Your task to perform on an android device: turn off wifi Image 0: 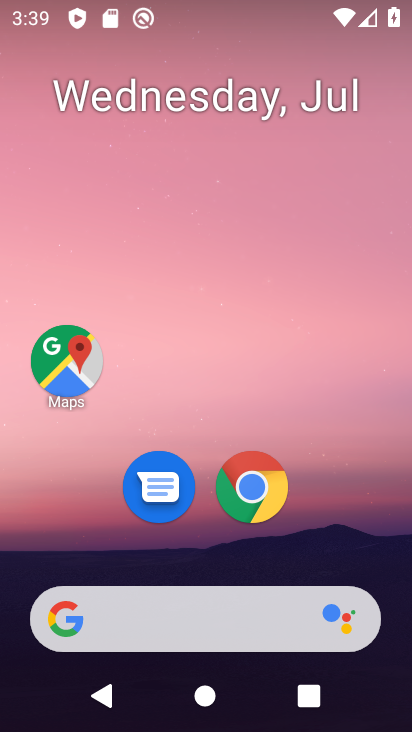
Step 0: drag from (199, 622) to (287, 122)
Your task to perform on an android device: turn off wifi Image 1: 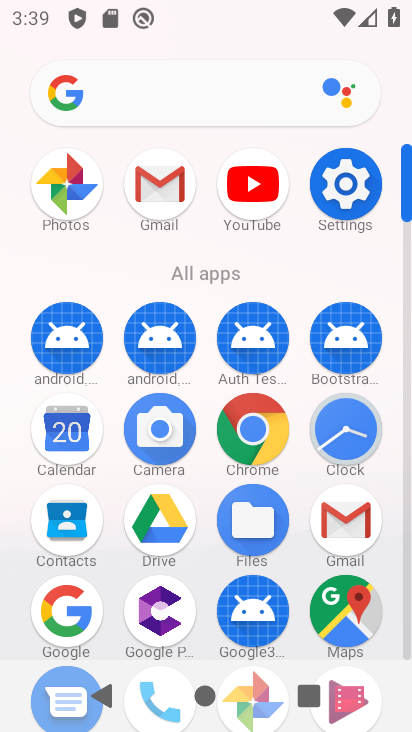
Step 1: click (337, 214)
Your task to perform on an android device: turn off wifi Image 2: 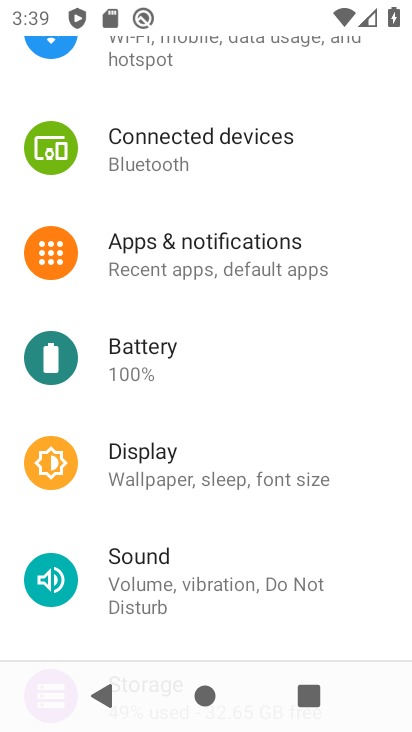
Step 2: drag from (203, 374) to (207, 625)
Your task to perform on an android device: turn off wifi Image 3: 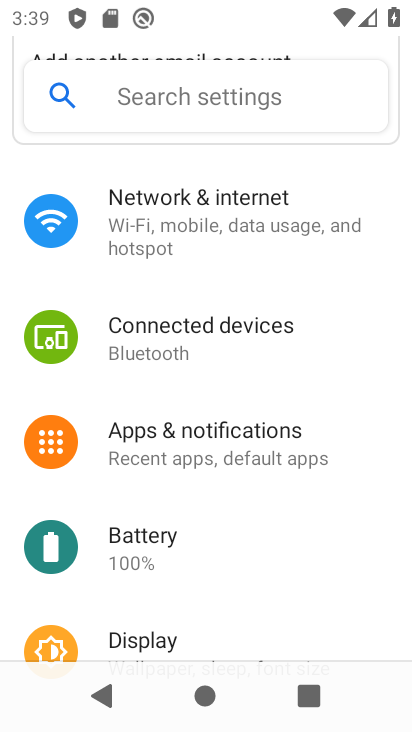
Step 3: click (190, 238)
Your task to perform on an android device: turn off wifi Image 4: 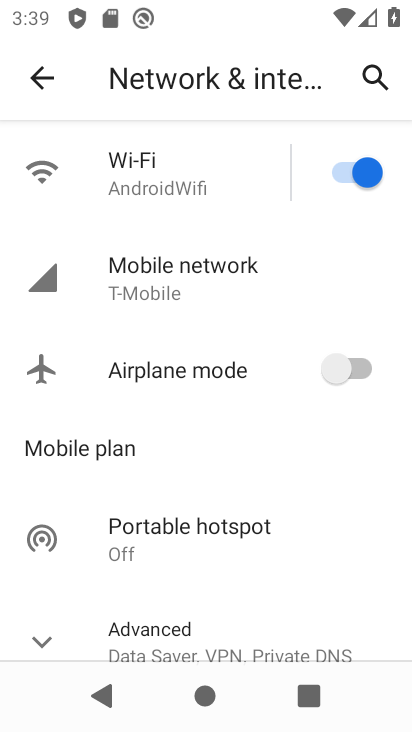
Step 4: click (334, 175)
Your task to perform on an android device: turn off wifi Image 5: 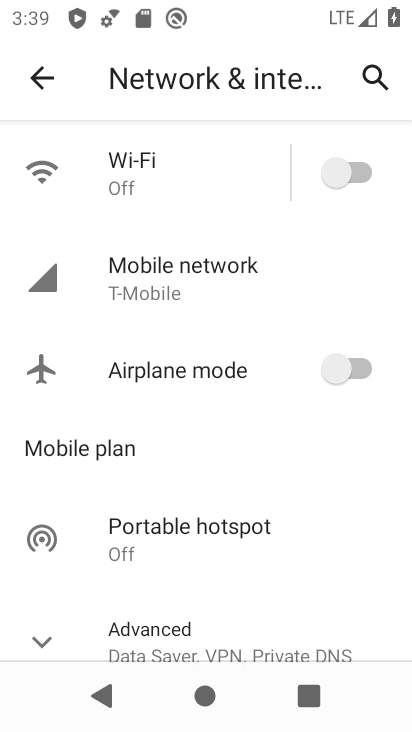
Step 5: task complete